Your task to perform on an android device: Open Wikipedia Image 0: 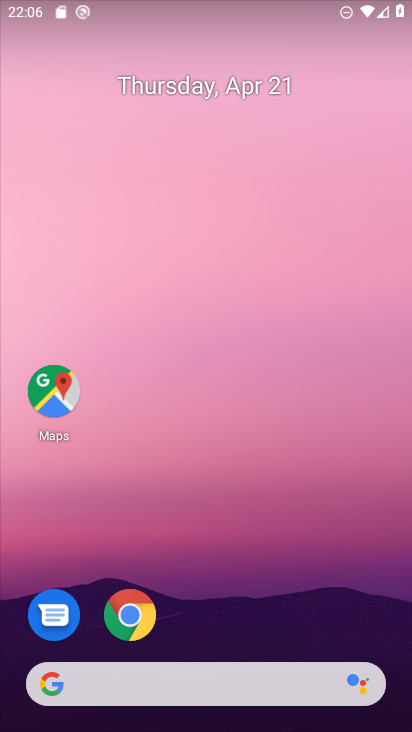
Step 0: drag from (182, 622) to (214, 230)
Your task to perform on an android device: Open Wikipedia Image 1: 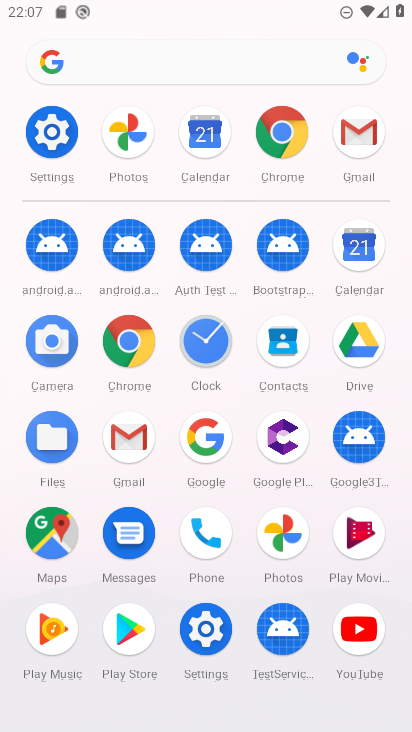
Step 1: drag from (175, 590) to (169, 147)
Your task to perform on an android device: Open Wikipedia Image 2: 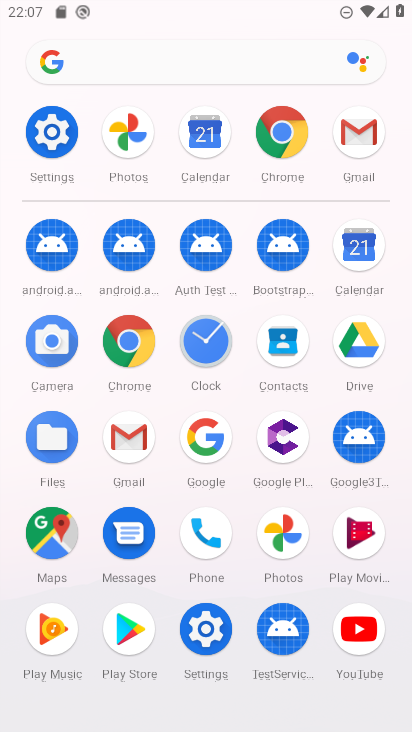
Step 2: click (135, 341)
Your task to perform on an android device: Open Wikipedia Image 3: 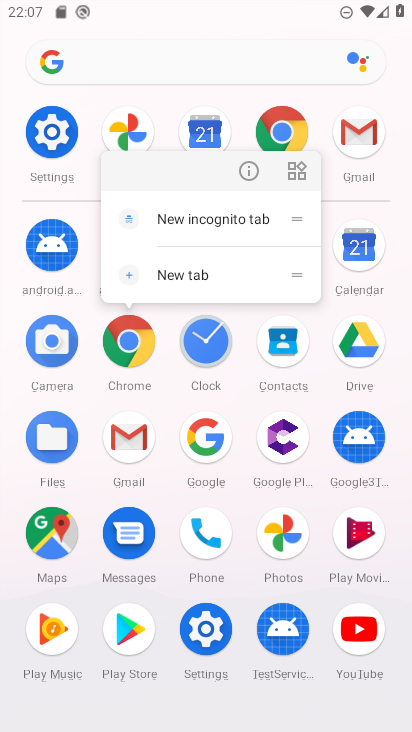
Step 3: click (237, 187)
Your task to perform on an android device: Open Wikipedia Image 4: 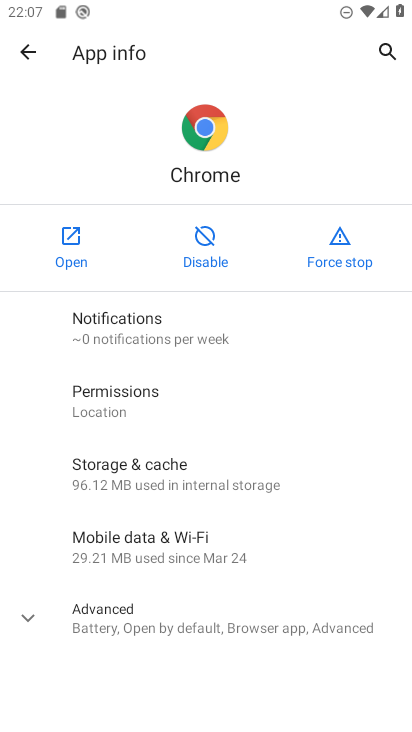
Step 4: click (79, 263)
Your task to perform on an android device: Open Wikipedia Image 5: 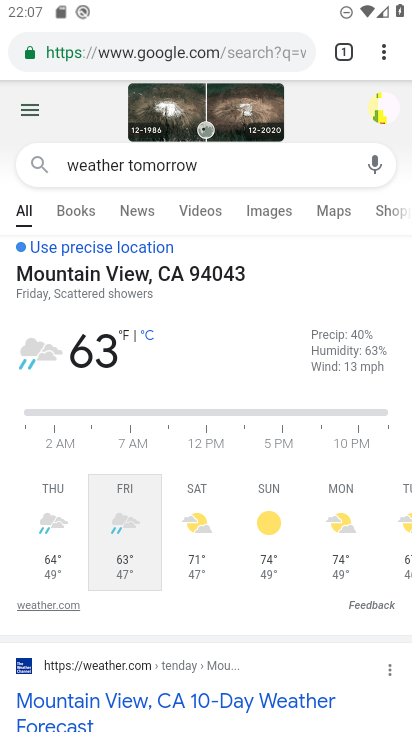
Step 5: drag from (213, 642) to (303, 242)
Your task to perform on an android device: Open Wikipedia Image 6: 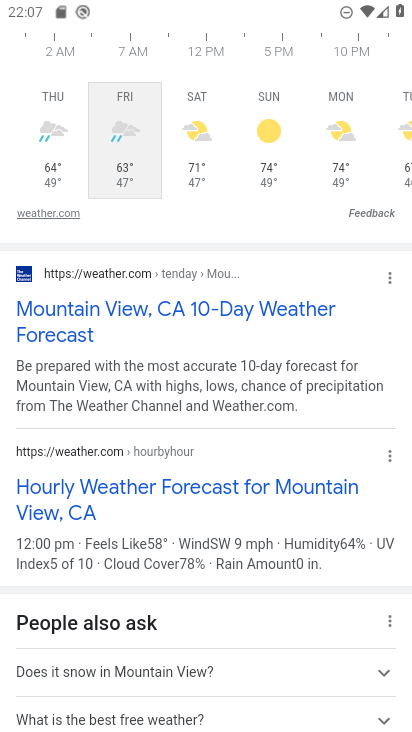
Step 6: drag from (252, 588) to (295, 313)
Your task to perform on an android device: Open Wikipedia Image 7: 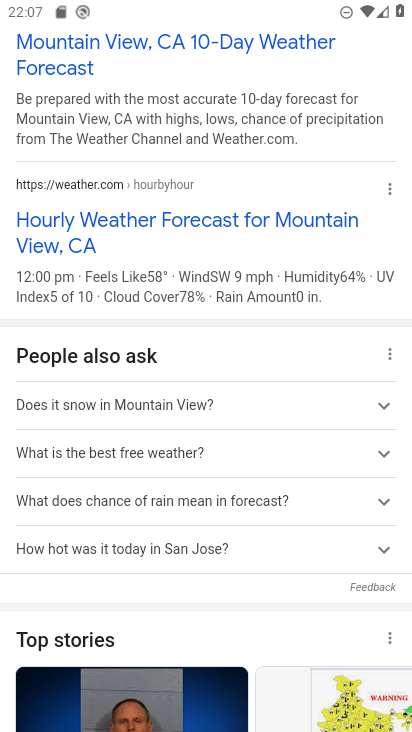
Step 7: drag from (228, 277) to (177, 731)
Your task to perform on an android device: Open Wikipedia Image 8: 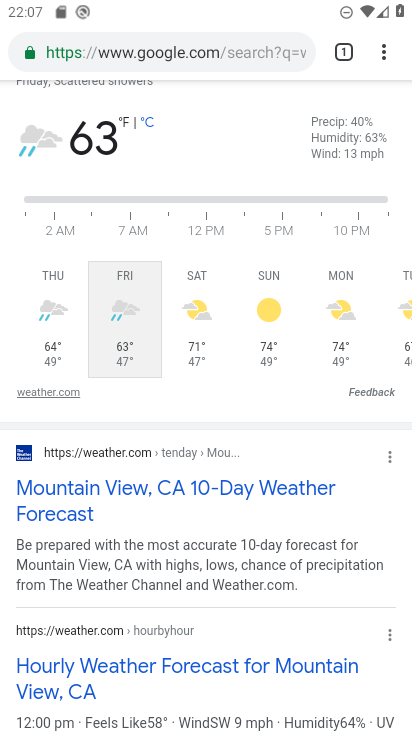
Step 8: click (138, 65)
Your task to perform on an android device: Open Wikipedia Image 9: 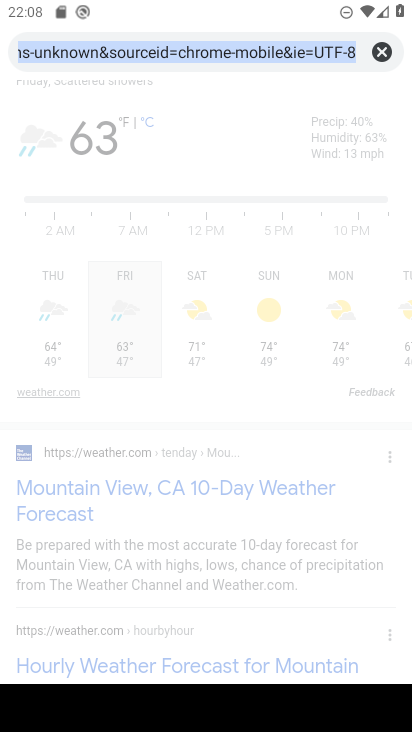
Step 9: click (382, 60)
Your task to perform on an android device: Open Wikipedia Image 10: 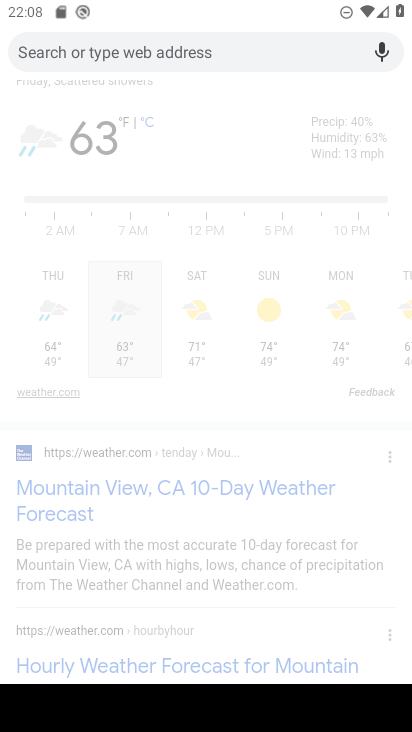
Step 10: type "wikipedia"
Your task to perform on an android device: Open Wikipedia Image 11: 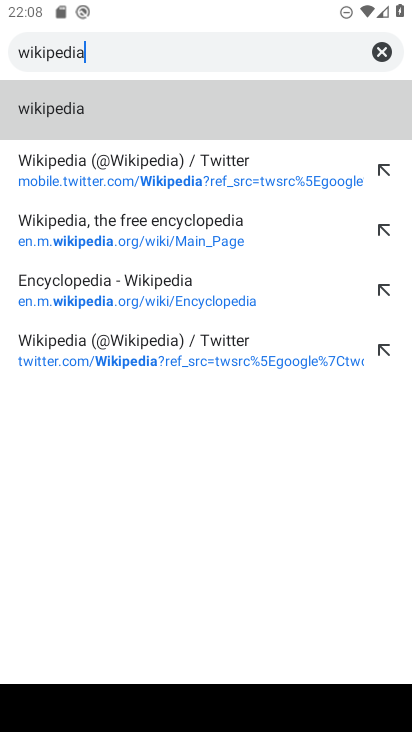
Step 11: click (86, 128)
Your task to perform on an android device: Open Wikipedia Image 12: 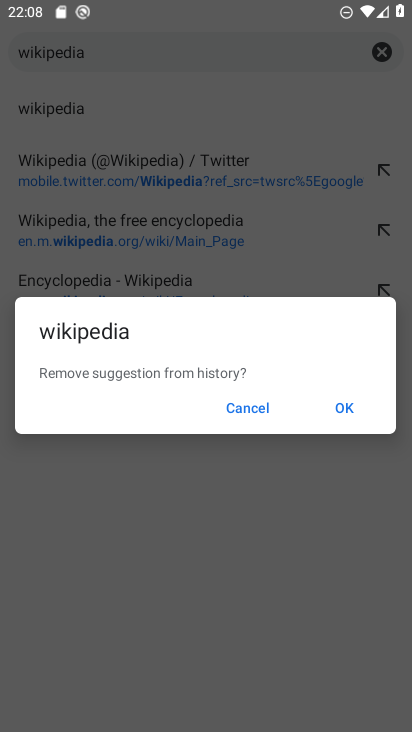
Step 12: click (334, 404)
Your task to perform on an android device: Open Wikipedia Image 13: 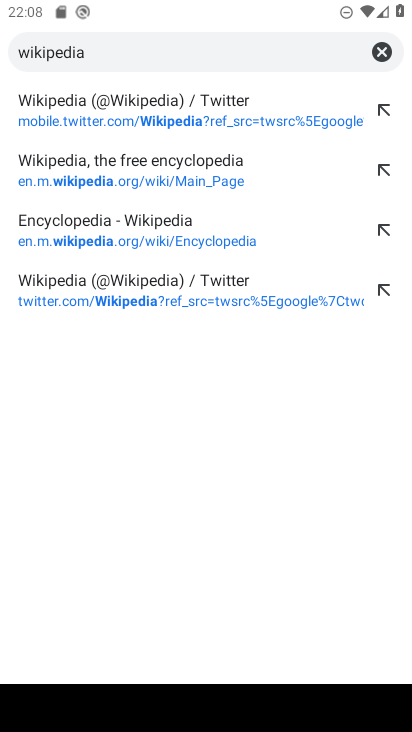
Step 13: task complete